Your task to perform on an android device: open app "PlayWell" (install if not already installed) Image 0: 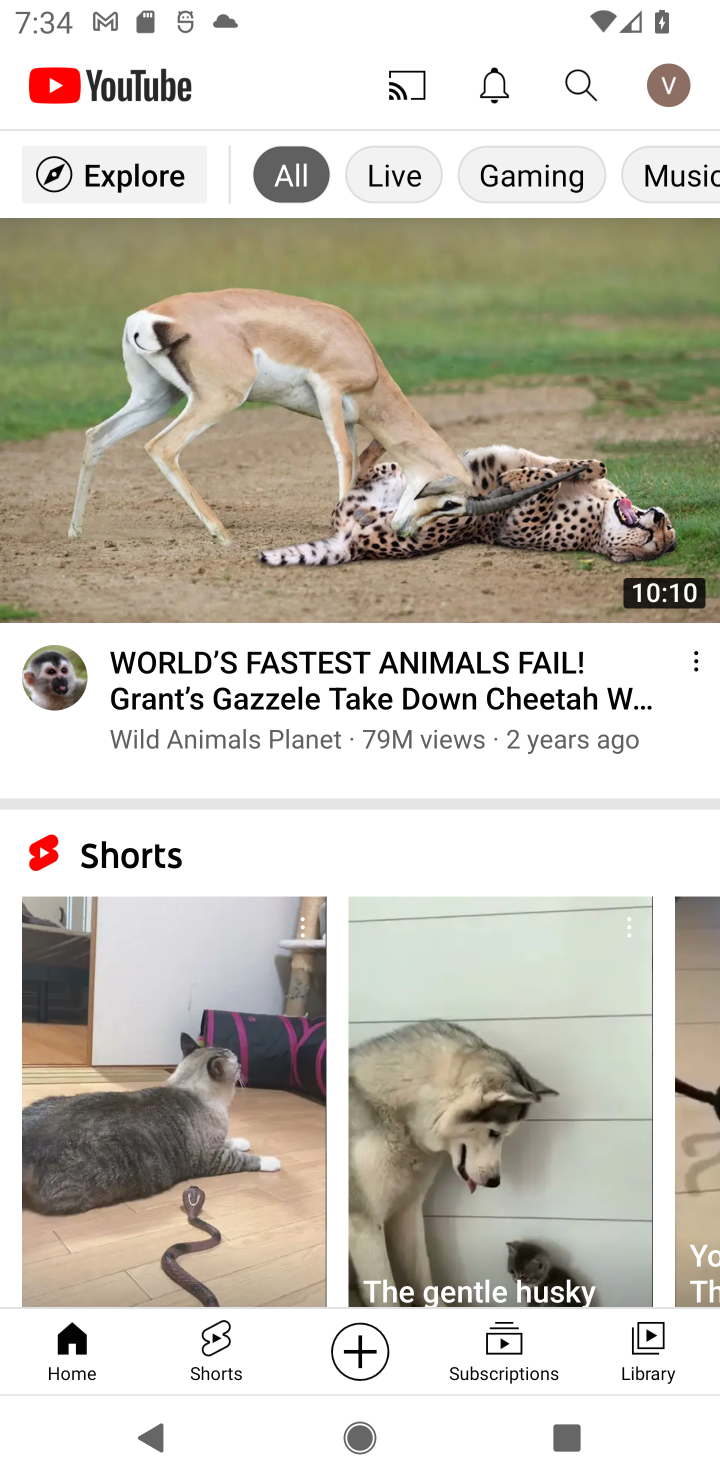
Step 0: press home button
Your task to perform on an android device: open app "PlayWell" (install if not already installed) Image 1: 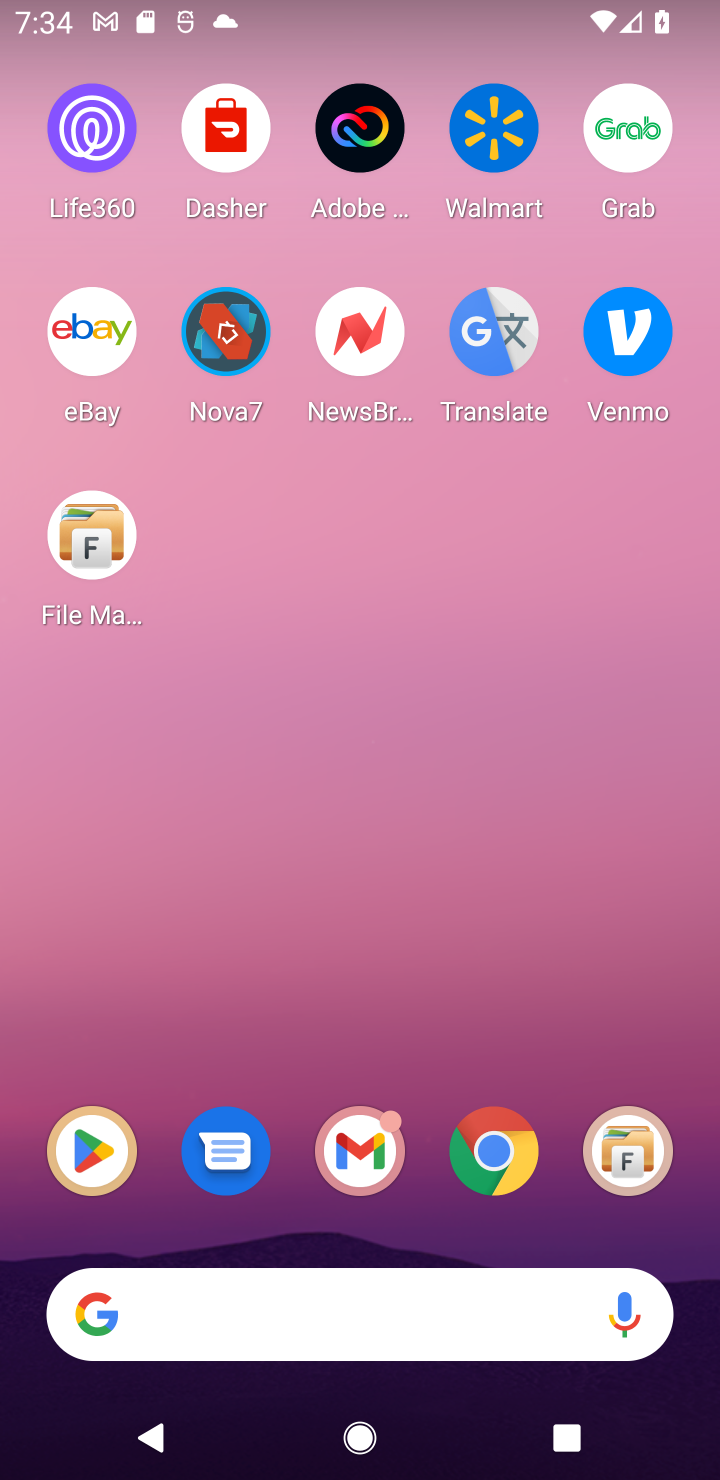
Step 1: click (99, 1153)
Your task to perform on an android device: open app "PlayWell" (install if not already installed) Image 2: 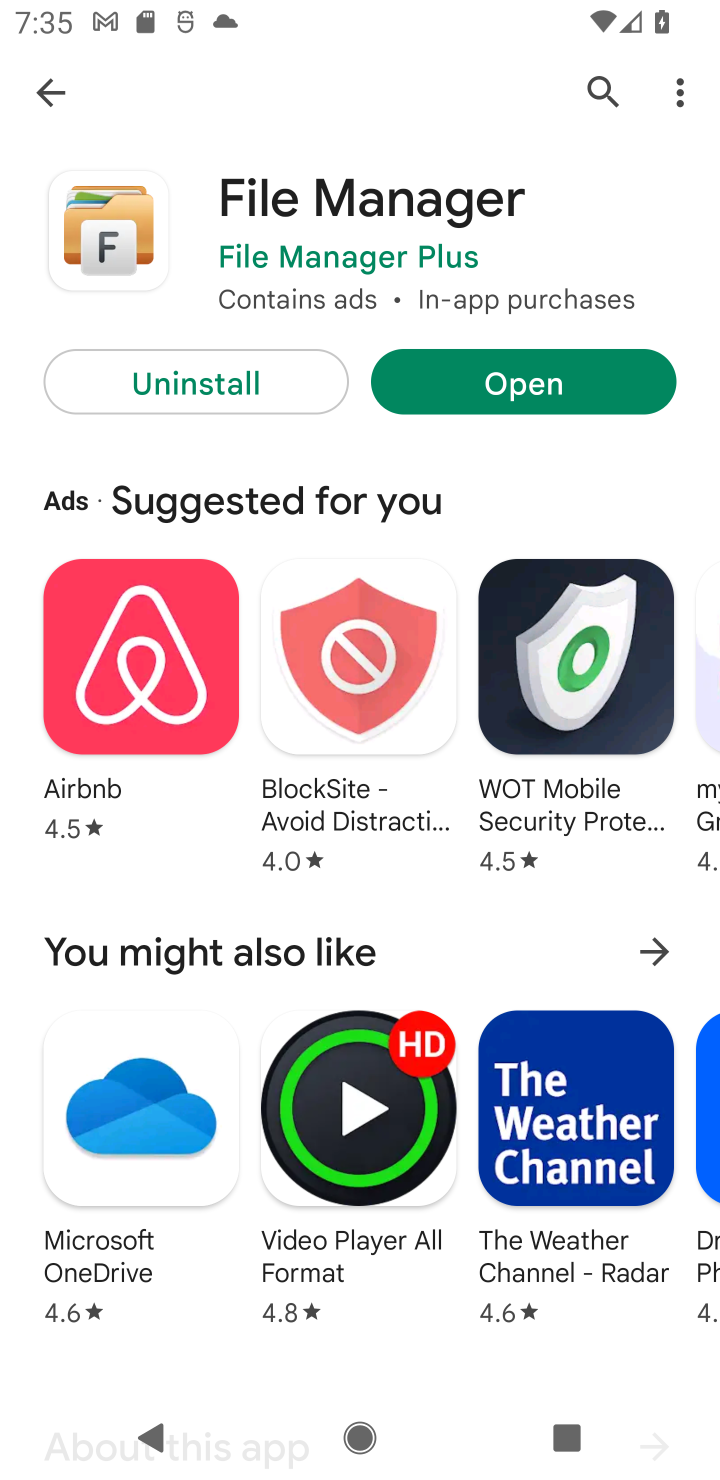
Step 2: click (600, 111)
Your task to perform on an android device: open app "PlayWell" (install if not already installed) Image 3: 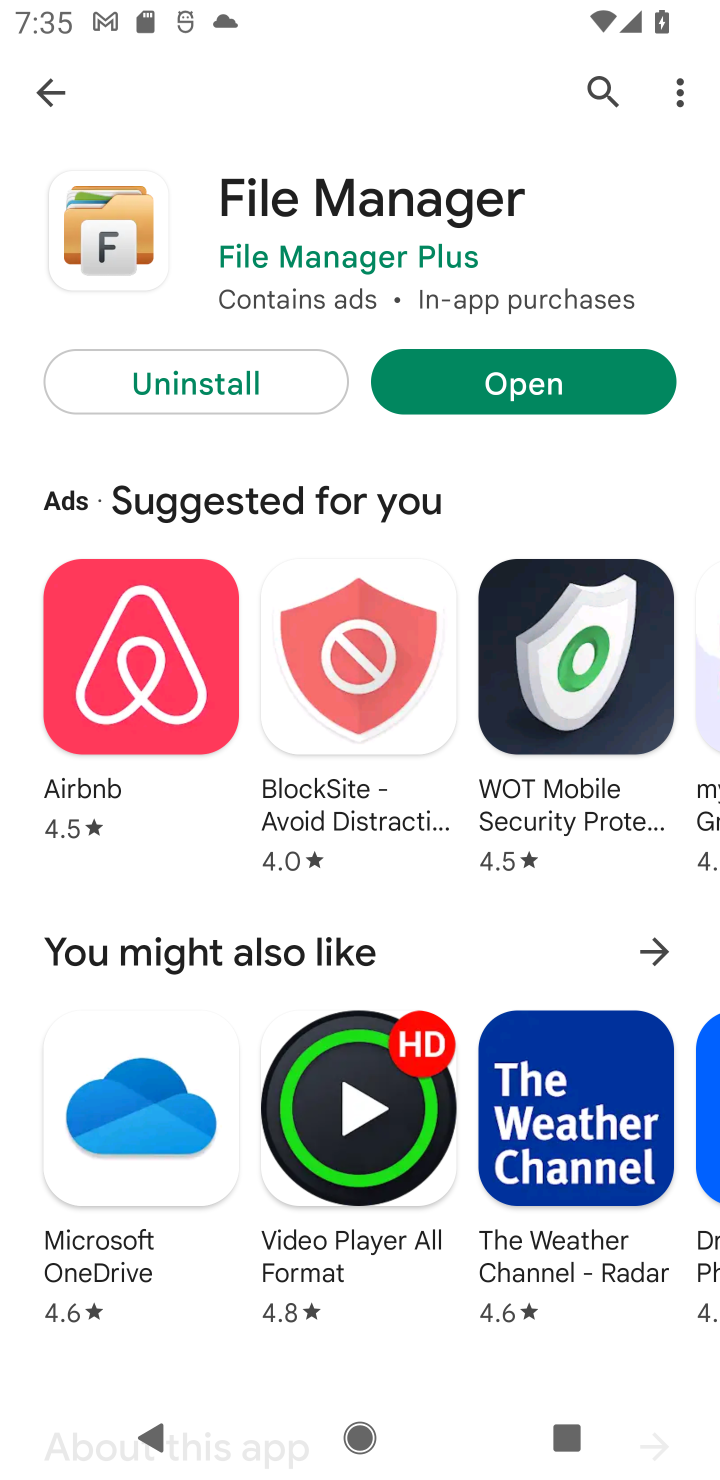
Step 3: click (598, 94)
Your task to perform on an android device: open app "PlayWell" (install if not already installed) Image 4: 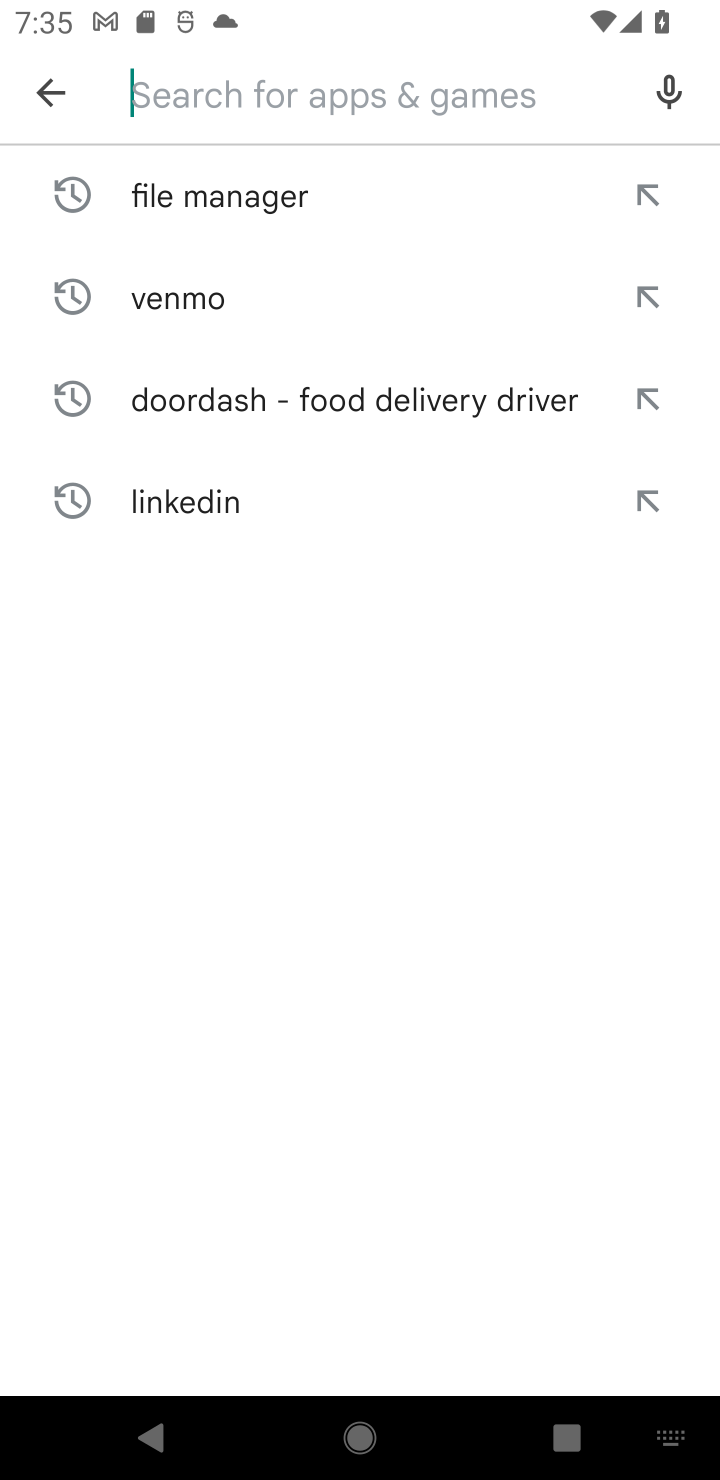
Step 4: type "PlayWell"
Your task to perform on an android device: open app "PlayWell" (install if not already installed) Image 5: 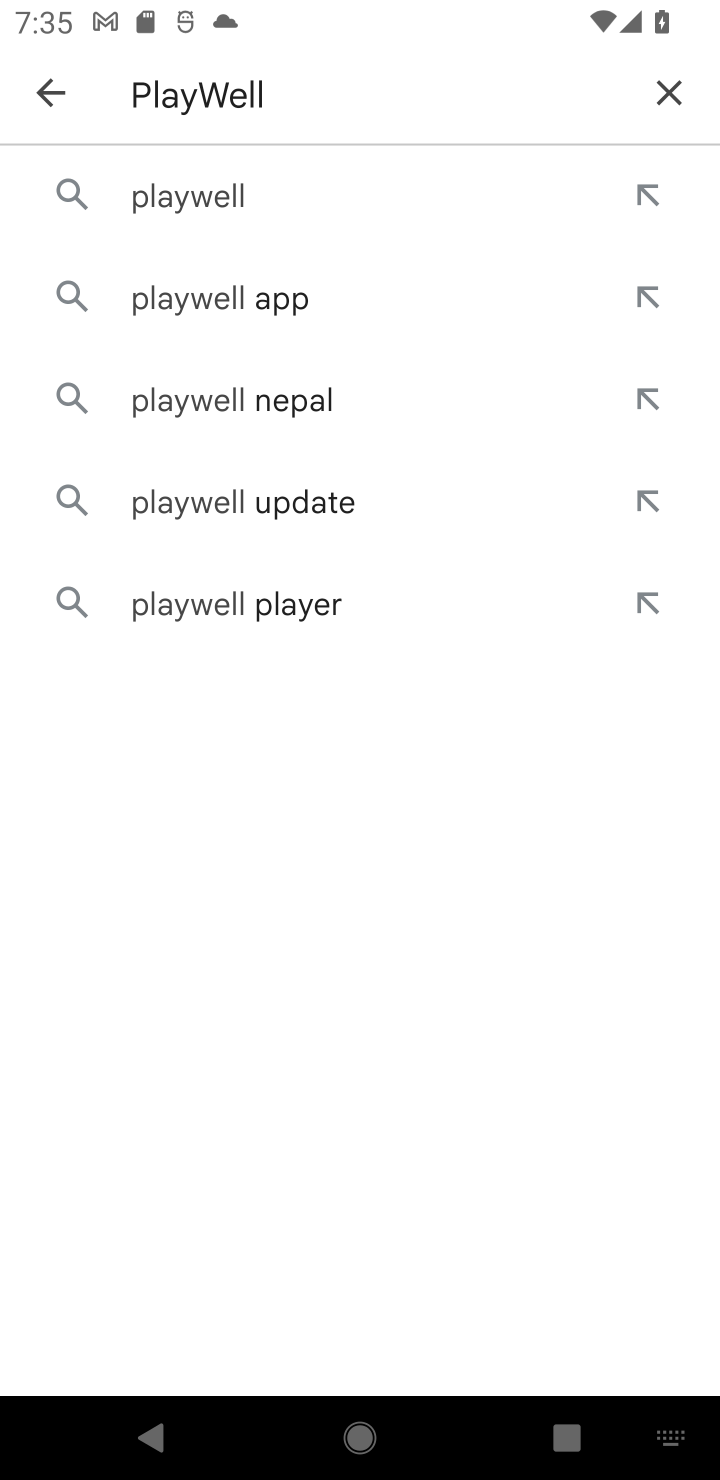
Step 5: click (316, 182)
Your task to perform on an android device: open app "PlayWell" (install if not already installed) Image 6: 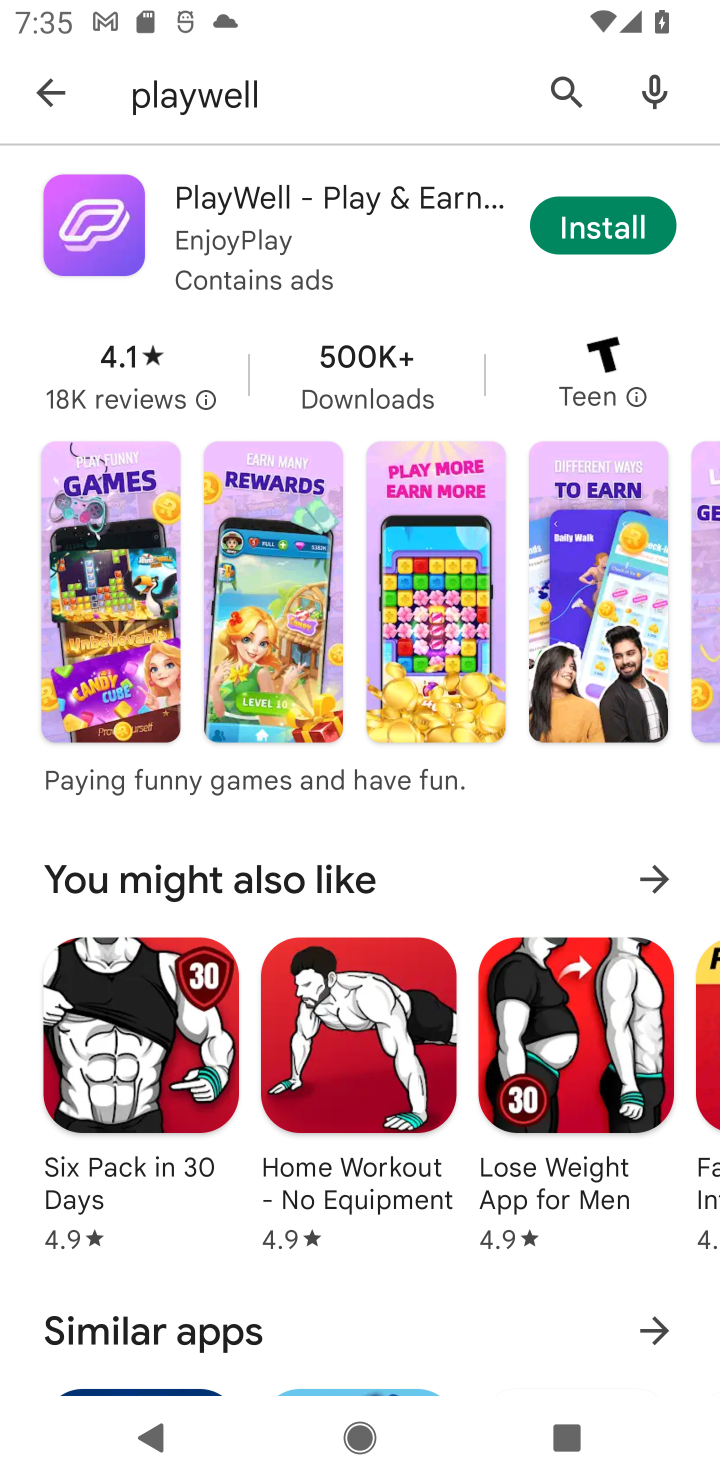
Step 6: click (605, 219)
Your task to perform on an android device: open app "PlayWell" (install if not already installed) Image 7: 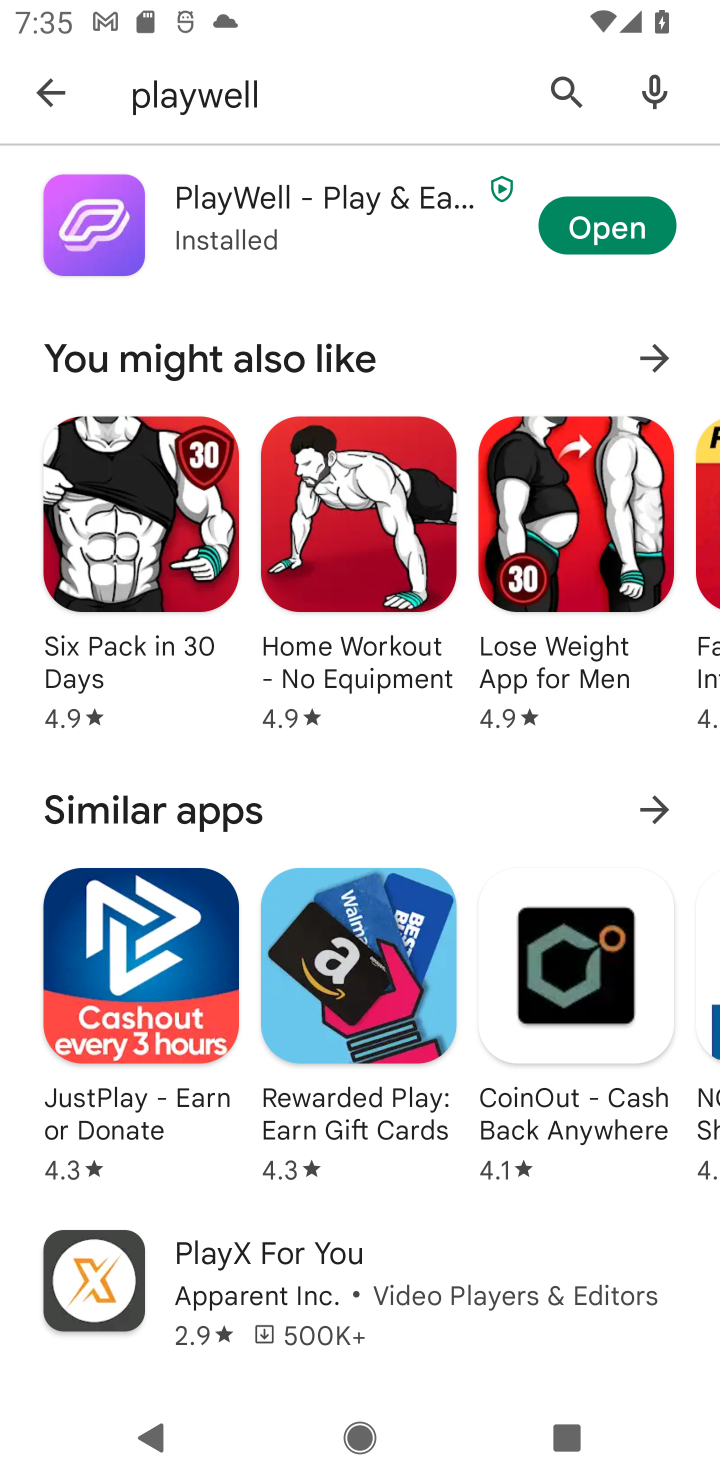
Step 7: click (618, 231)
Your task to perform on an android device: open app "PlayWell" (install if not already installed) Image 8: 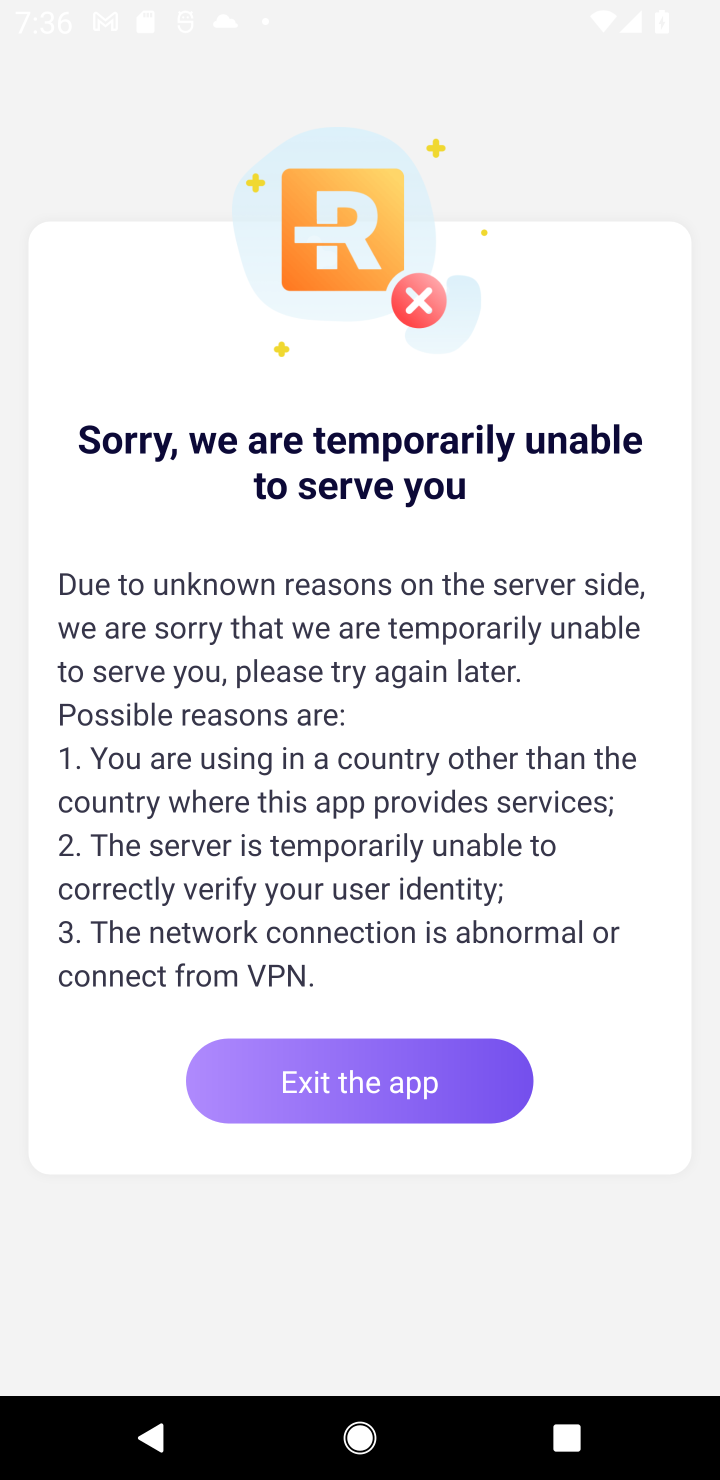
Step 8: task complete